Your task to perform on an android device: find snoozed emails in the gmail app Image 0: 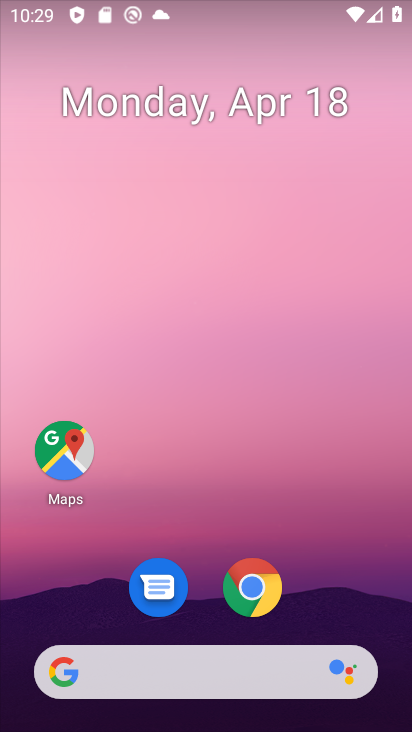
Step 0: drag from (357, 539) to (363, 0)
Your task to perform on an android device: find snoozed emails in the gmail app Image 1: 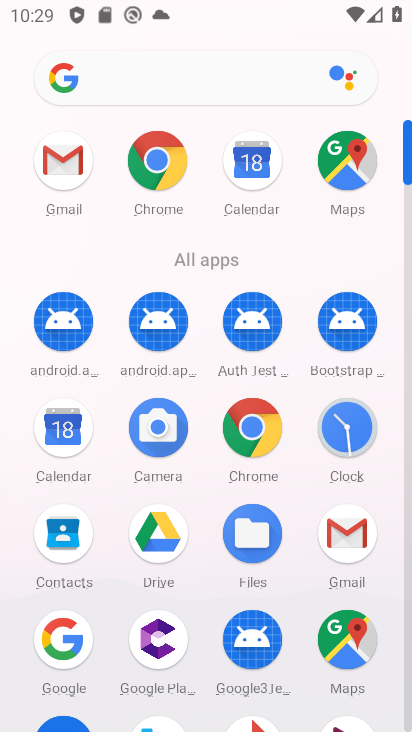
Step 1: click (348, 527)
Your task to perform on an android device: find snoozed emails in the gmail app Image 2: 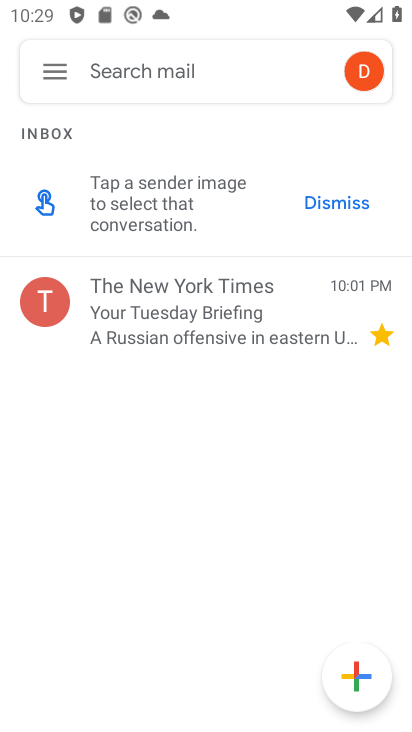
Step 2: click (335, 308)
Your task to perform on an android device: find snoozed emails in the gmail app Image 3: 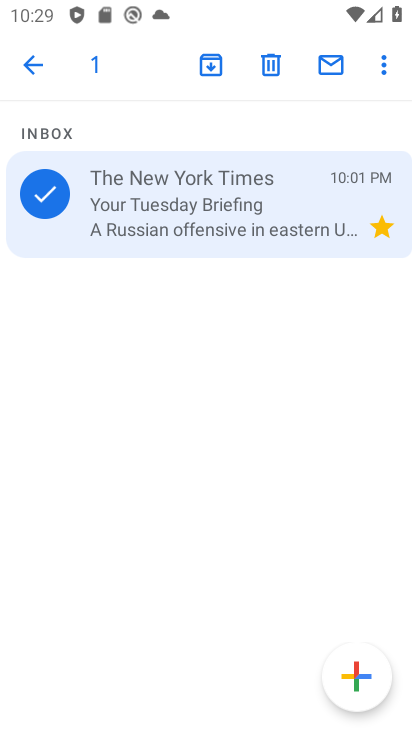
Step 3: click (375, 61)
Your task to perform on an android device: find snoozed emails in the gmail app Image 4: 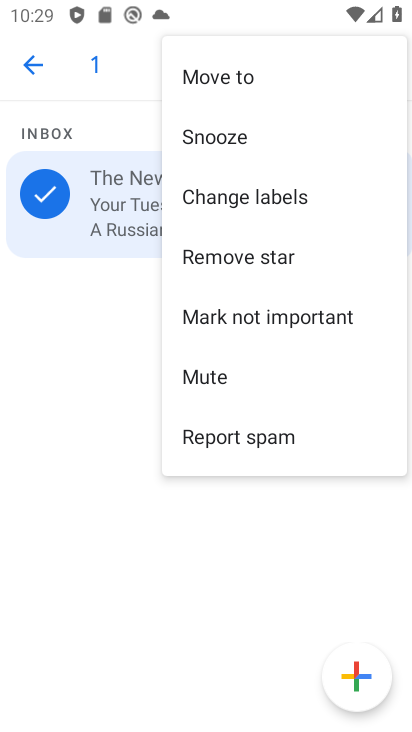
Step 4: click (257, 146)
Your task to perform on an android device: find snoozed emails in the gmail app Image 5: 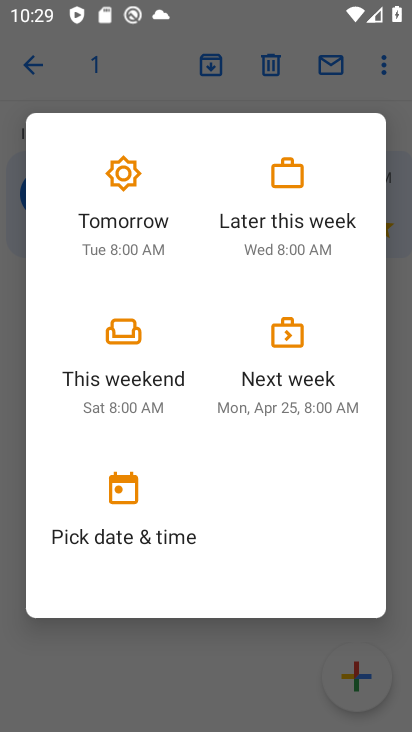
Step 5: click (148, 365)
Your task to perform on an android device: find snoozed emails in the gmail app Image 6: 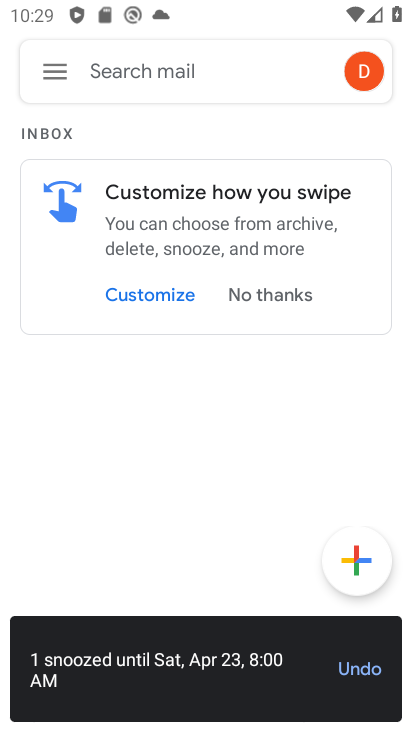
Step 6: task complete